Your task to perform on an android device: Do I have any events this weekend? Image 0: 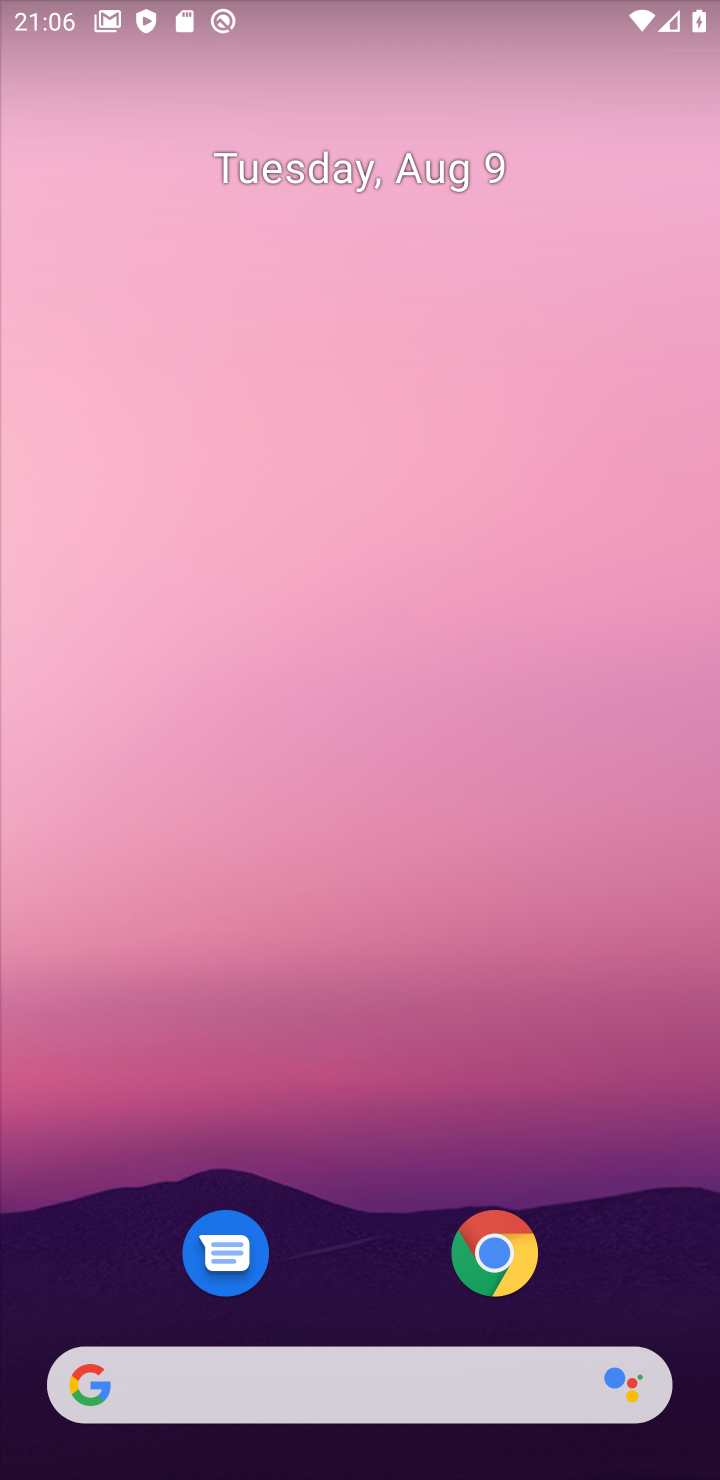
Step 0: drag from (333, 1302) to (483, 153)
Your task to perform on an android device: Do I have any events this weekend? Image 1: 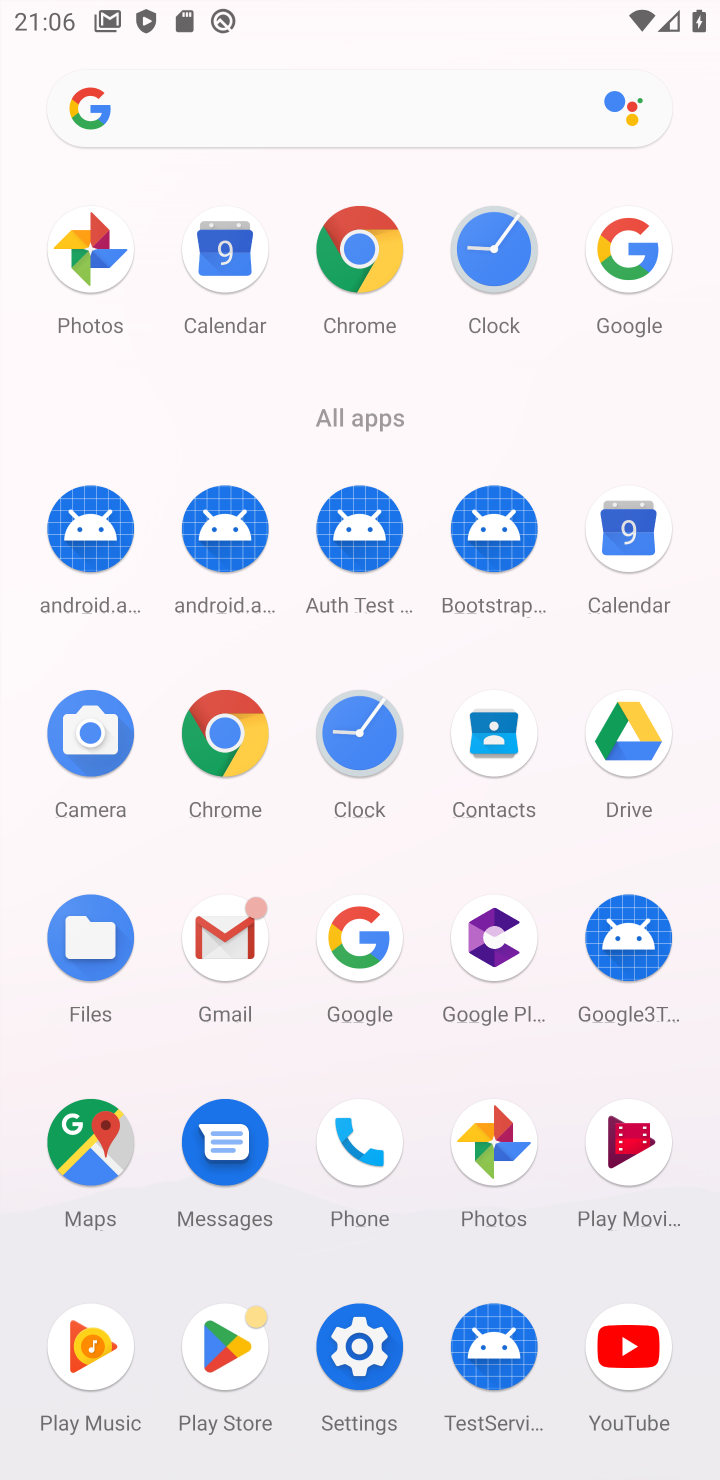
Step 1: click (631, 531)
Your task to perform on an android device: Do I have any events this weekend? Image 2: 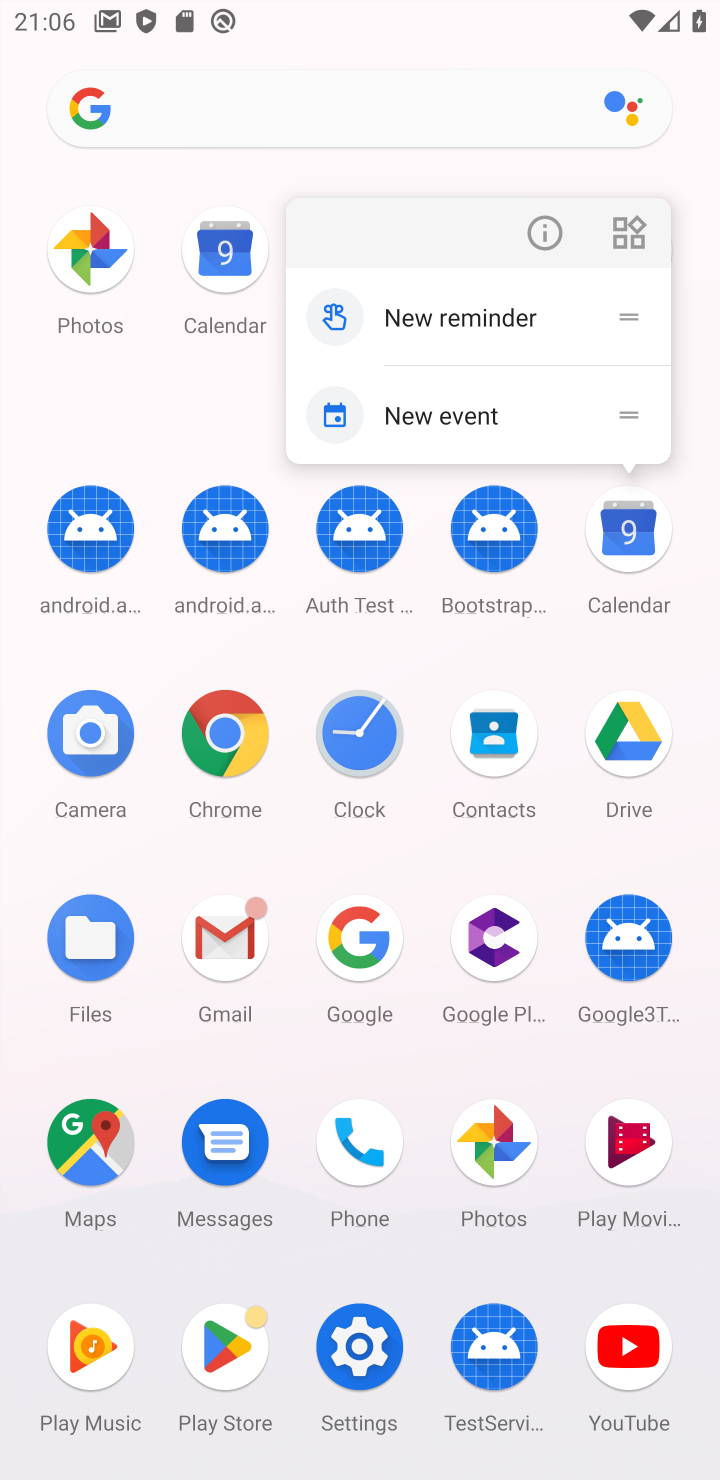
Step 2: click (631, 531)
Your task to perform on an android device: Do I have any events this weekend? Image 3: 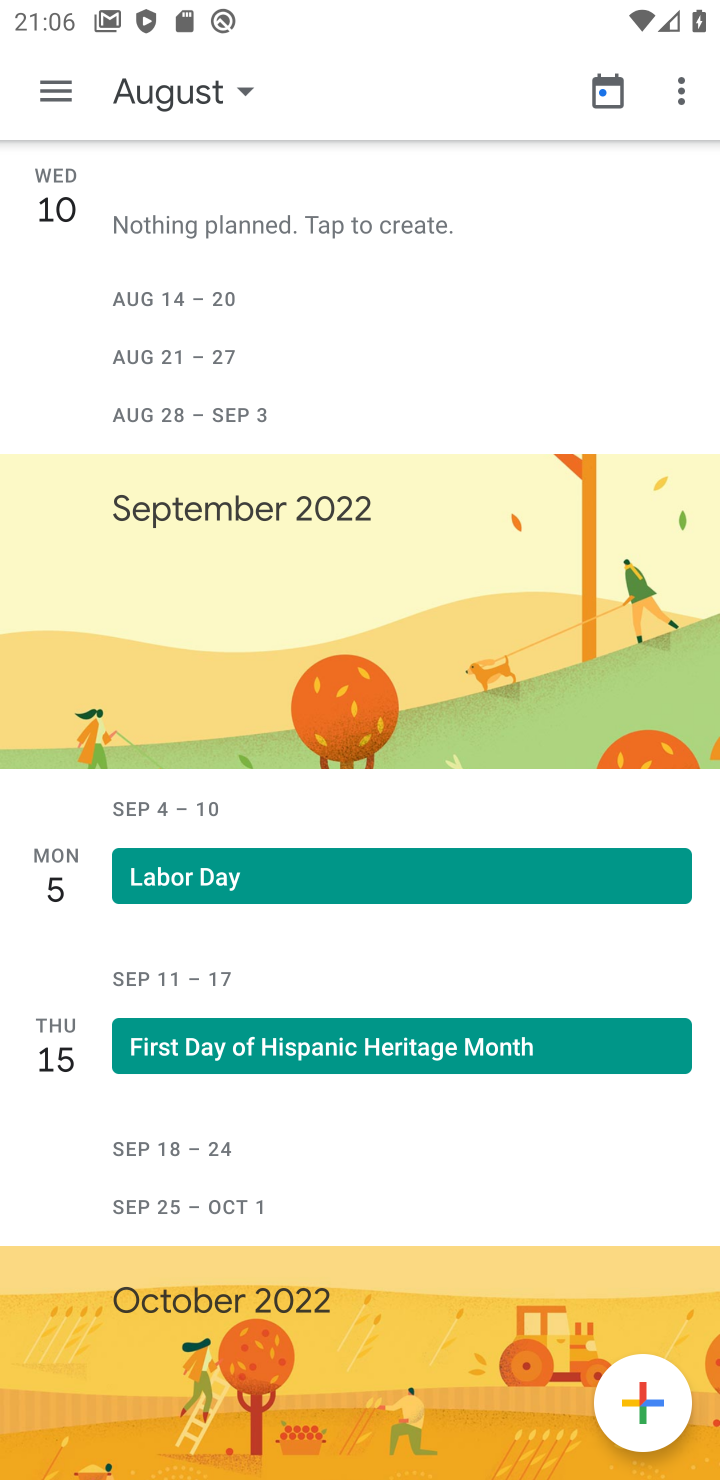
Step 3: click (155, 97)
Your task to perform on an android device: Do I have any events this weekend? Image 4: 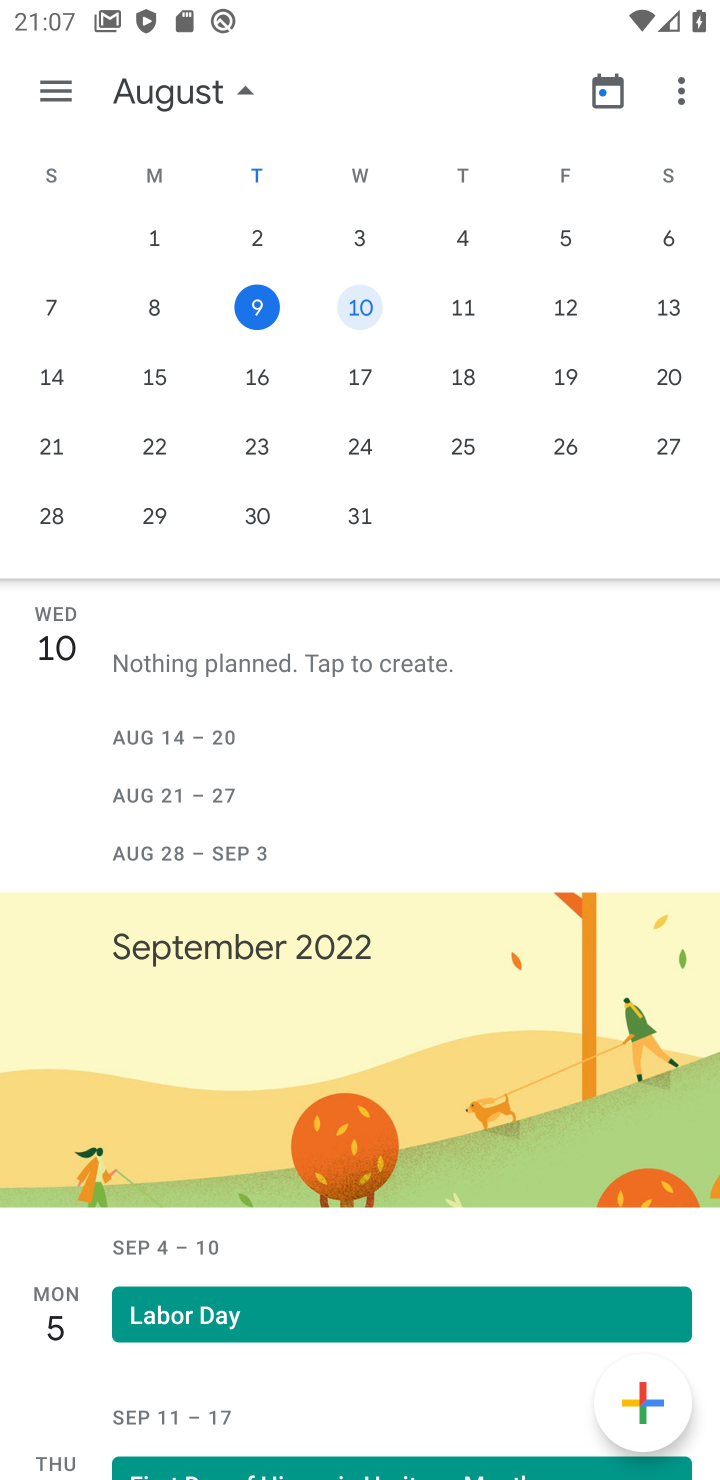
Step 4: click (657, 294)
Your task to perform on an android device: Do I have any events this weekend? Image 5: 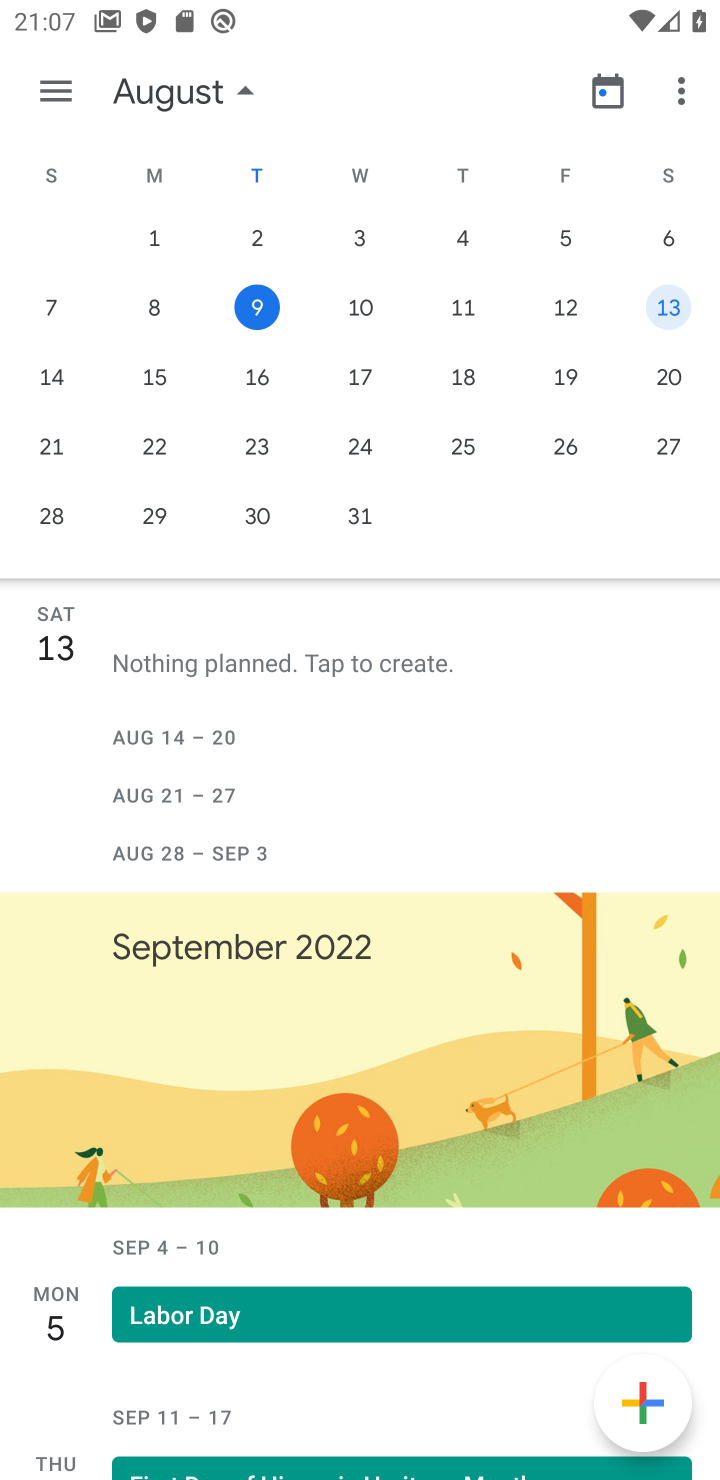
Step 5: task complete